Your task to perform on an android device: turn pop-ups off in chrome Image 0: 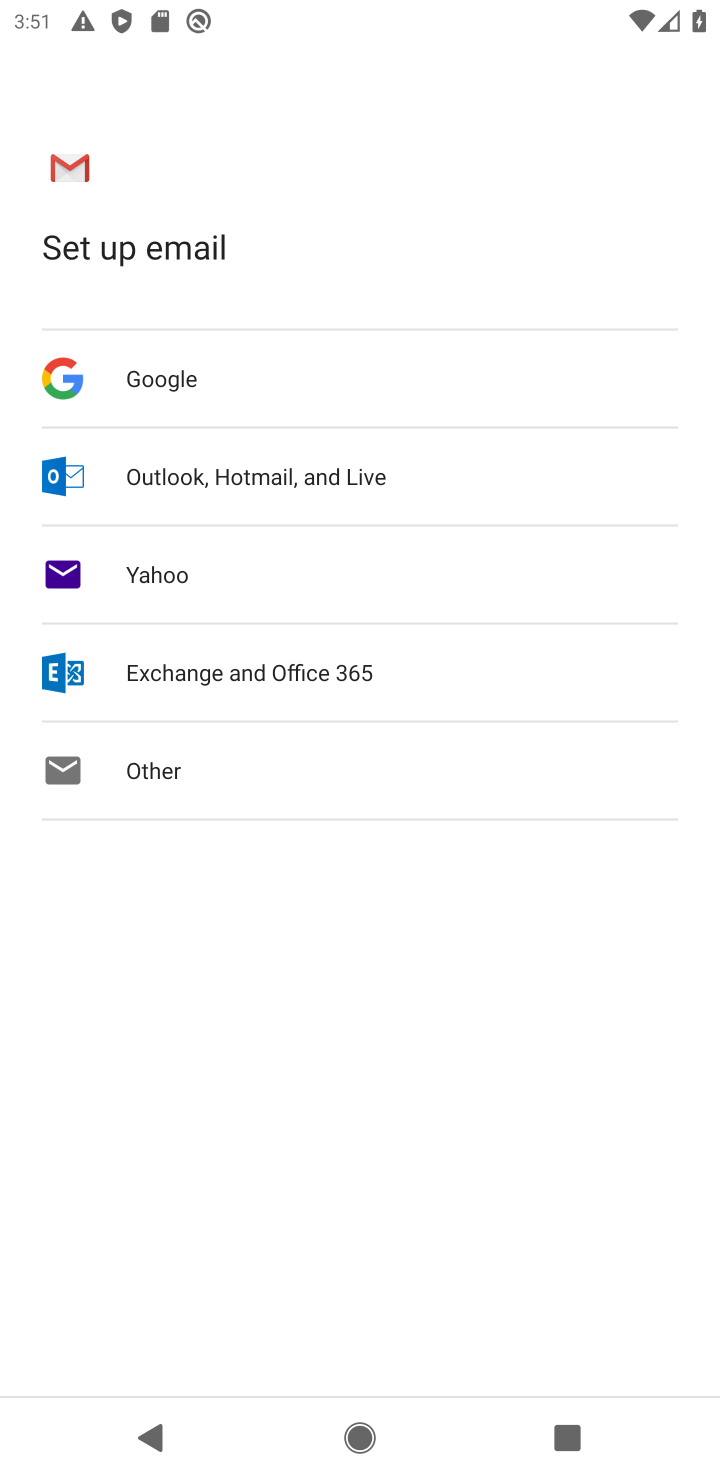
Step 0: press home button
Your task to perform on an android device: turn pop-ups off in chrome Image 1: 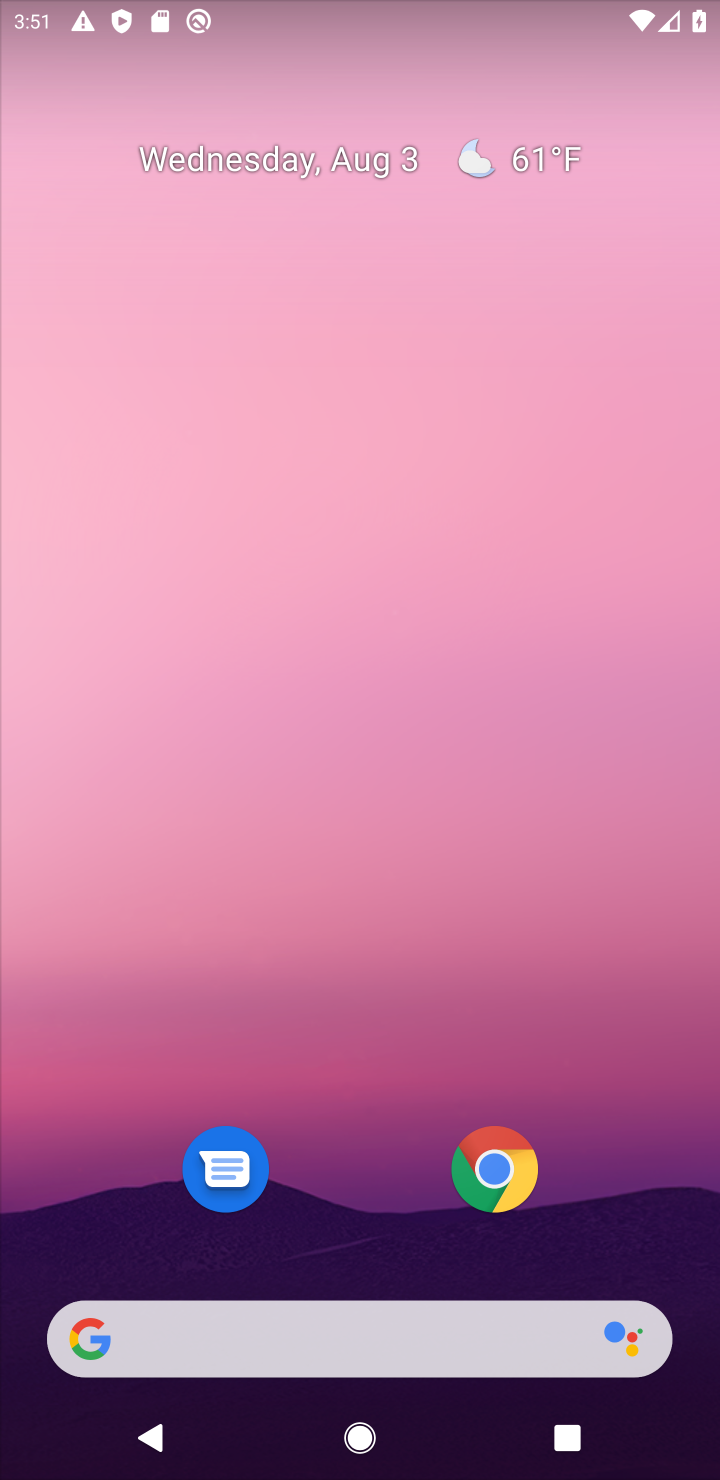
Step 1: click (506, 1160)
Your task to perform on an android device: turn pop-ups off in chrome Image 2: 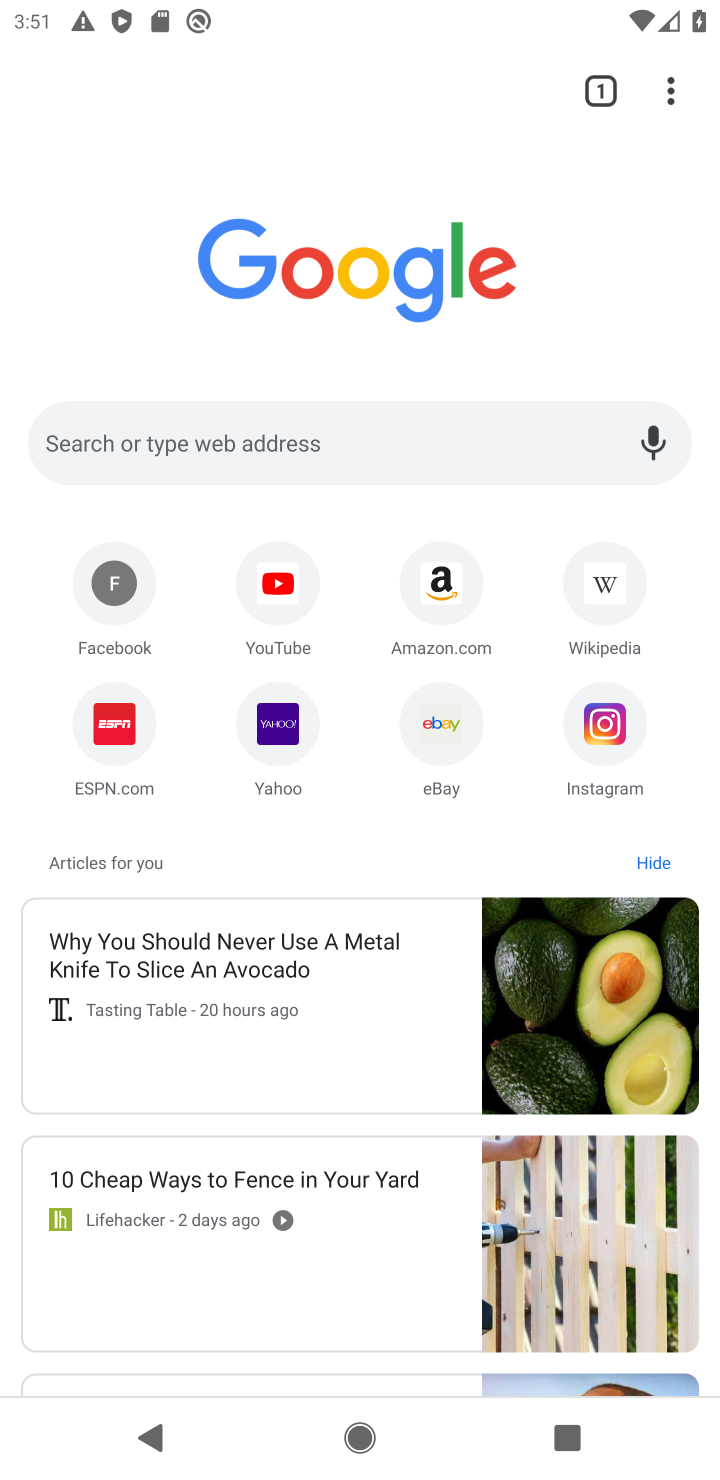
Step 2: click (666, 86)
Your task to perform on an android device: turn pop-ups off in chrome Image 3: 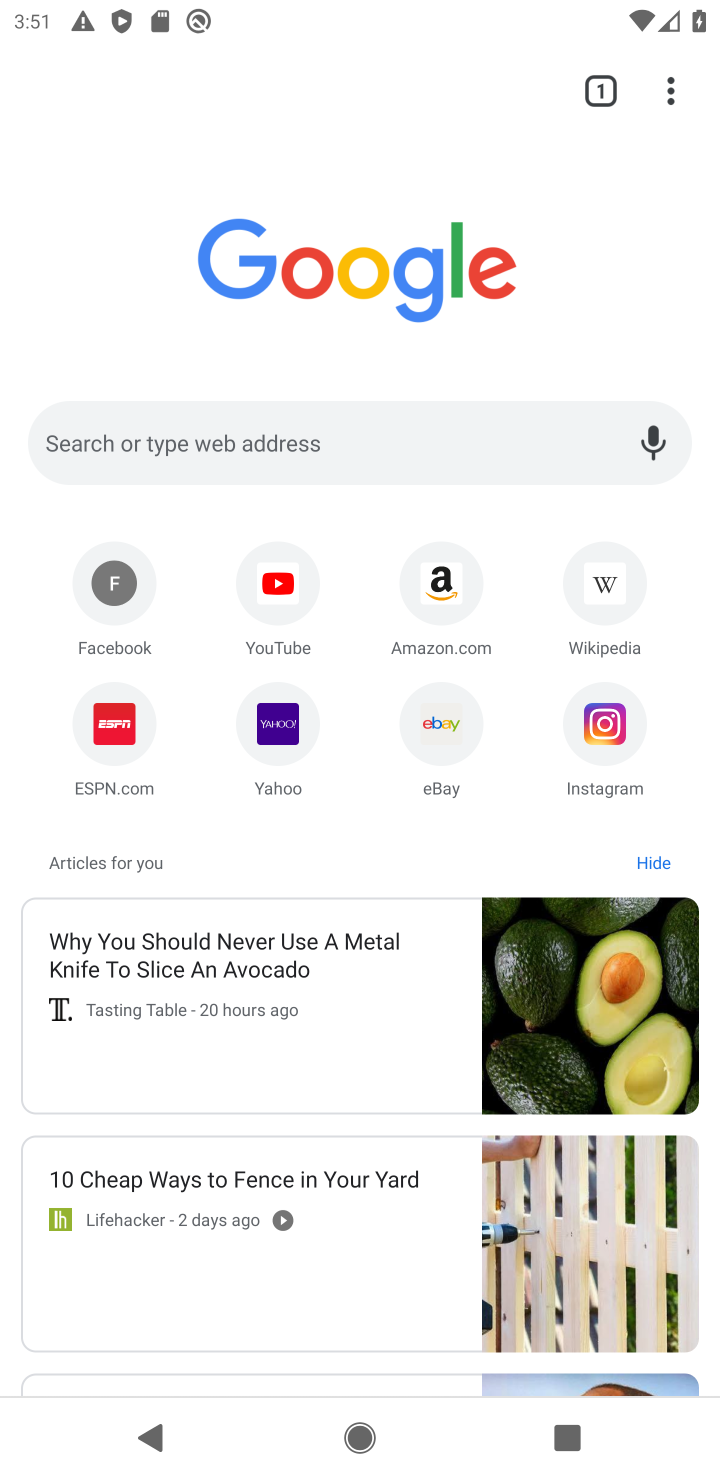
Step 3: click (658, 93)
Your task to perform on an android device: turn pop-ups off in chrome Image 4: 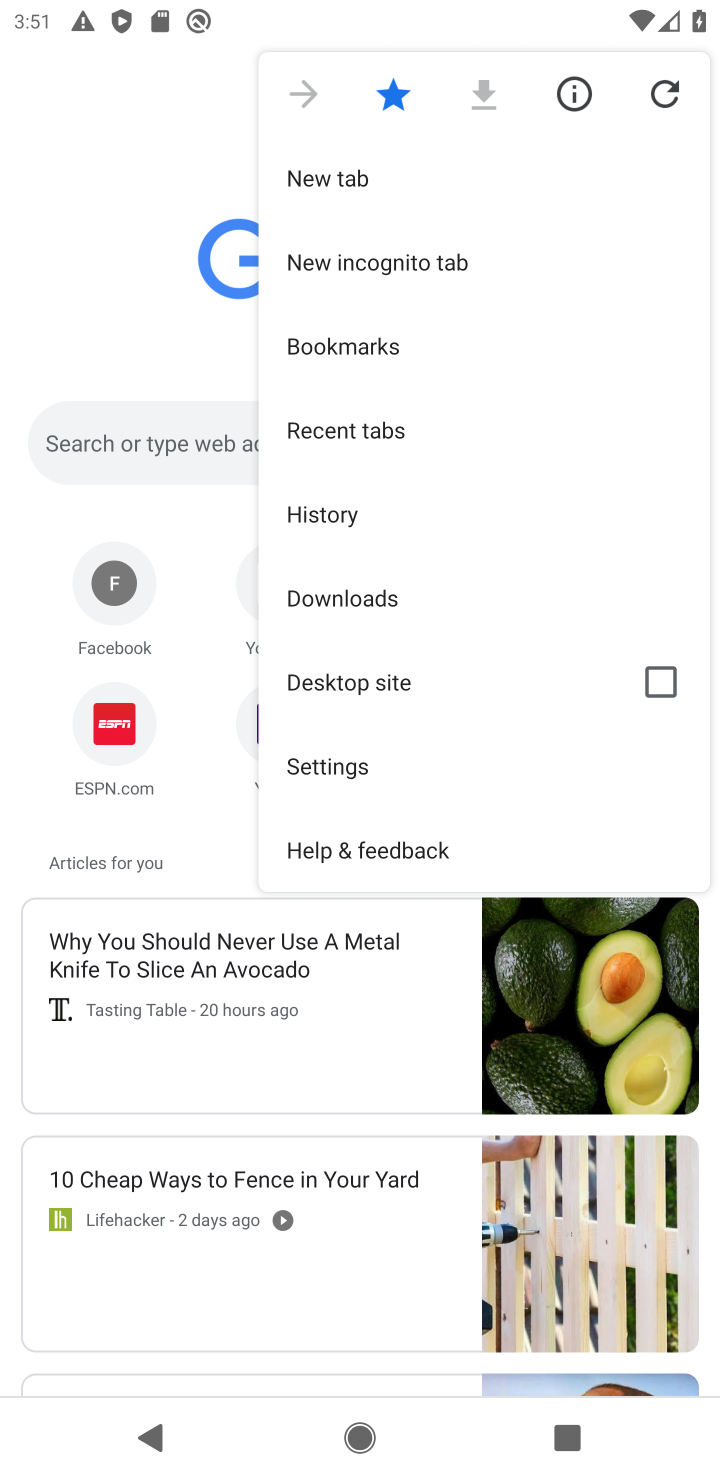
Step 4: click (678, 96)
Your task to perform on an android device: turn pop-ups off in chrome Image 5: 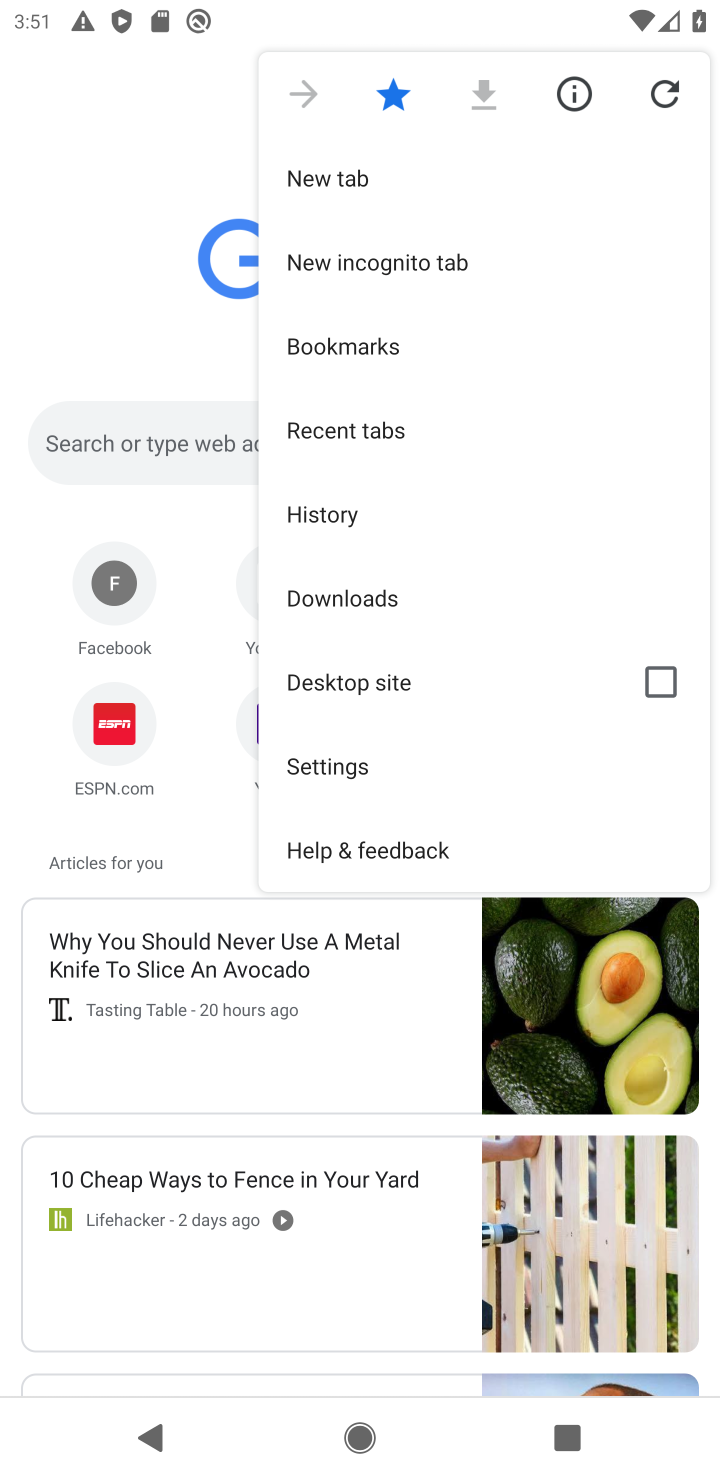
Step 5: click (342, 756)
Your task to perform on an android device: turn pop-ups off in chrome Image 6: 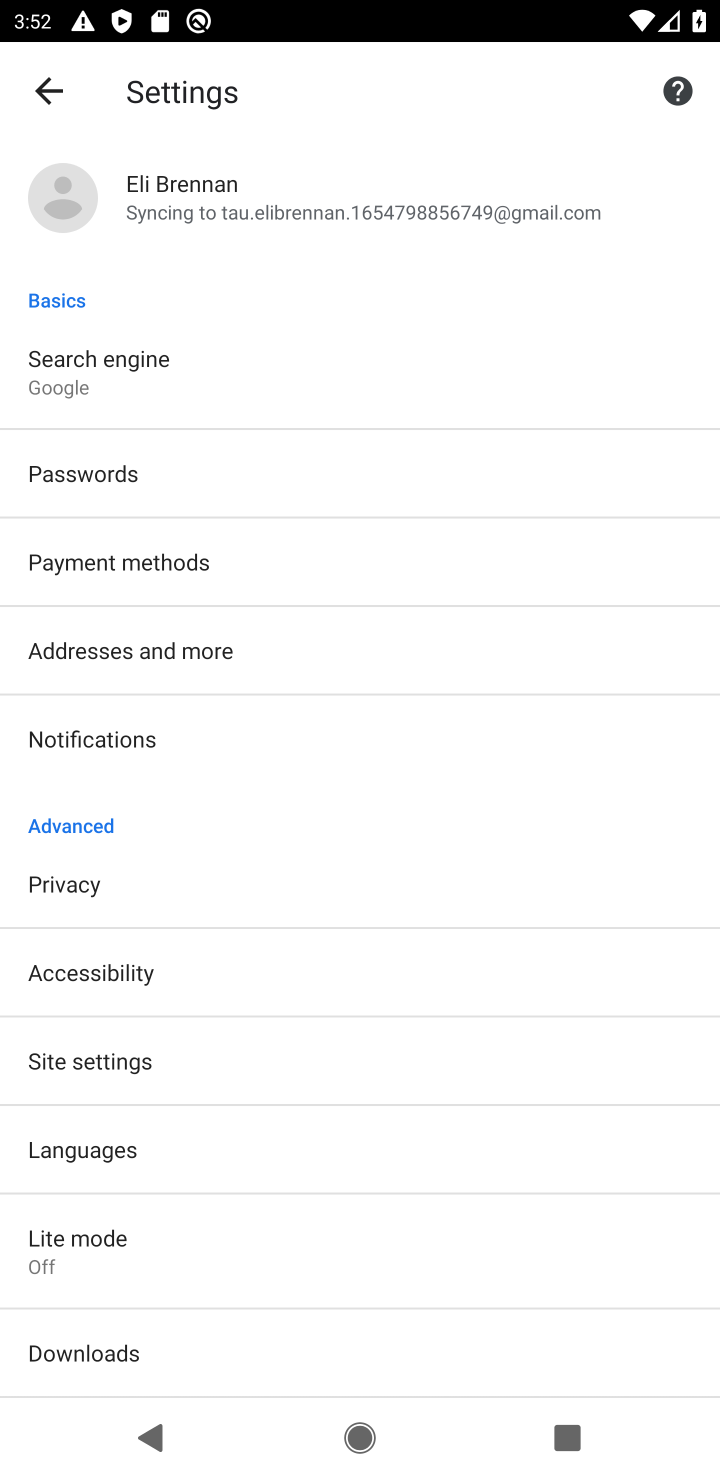
Step 6: drag from (147, 1239) to (201, 823)
Your task to perform on an android device: turn pop-ups off in chrome Image 7: 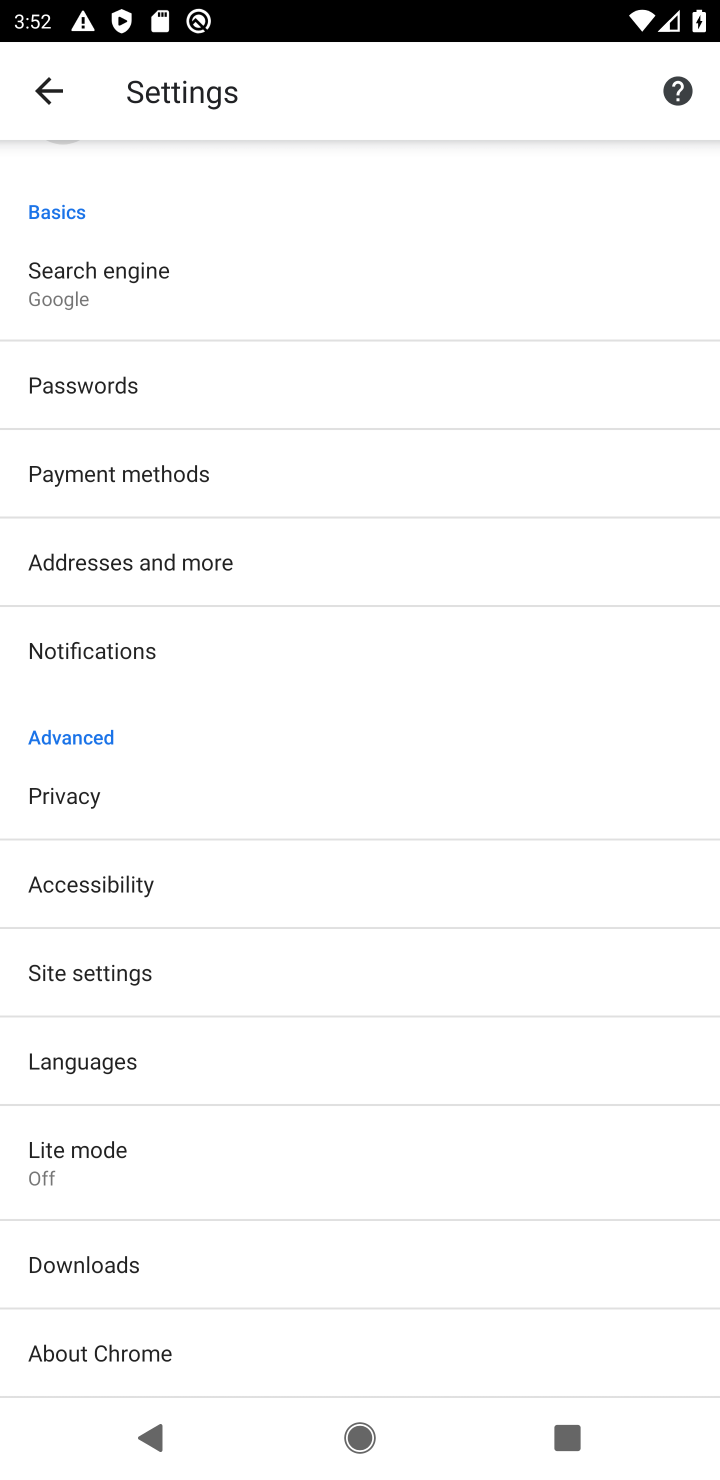
Step 7: drag from (132, 1115) to (128, 832)
Your task to perform on an android device: turn pop-ups off in chrome Image 8: 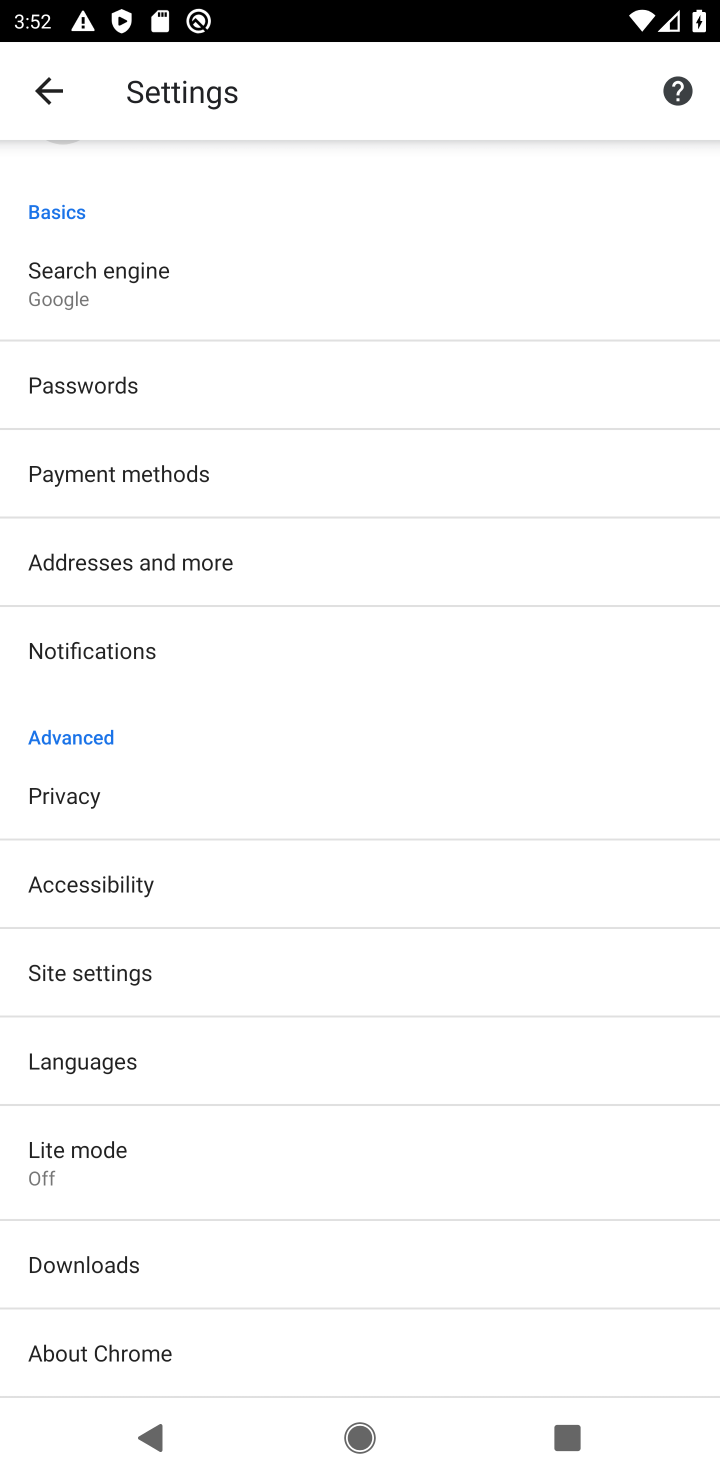
Step 8: drag from (146, 1276) to (127, 1077)
Your task to perform on an android device: turn pop-ups off in chrome Image 9: 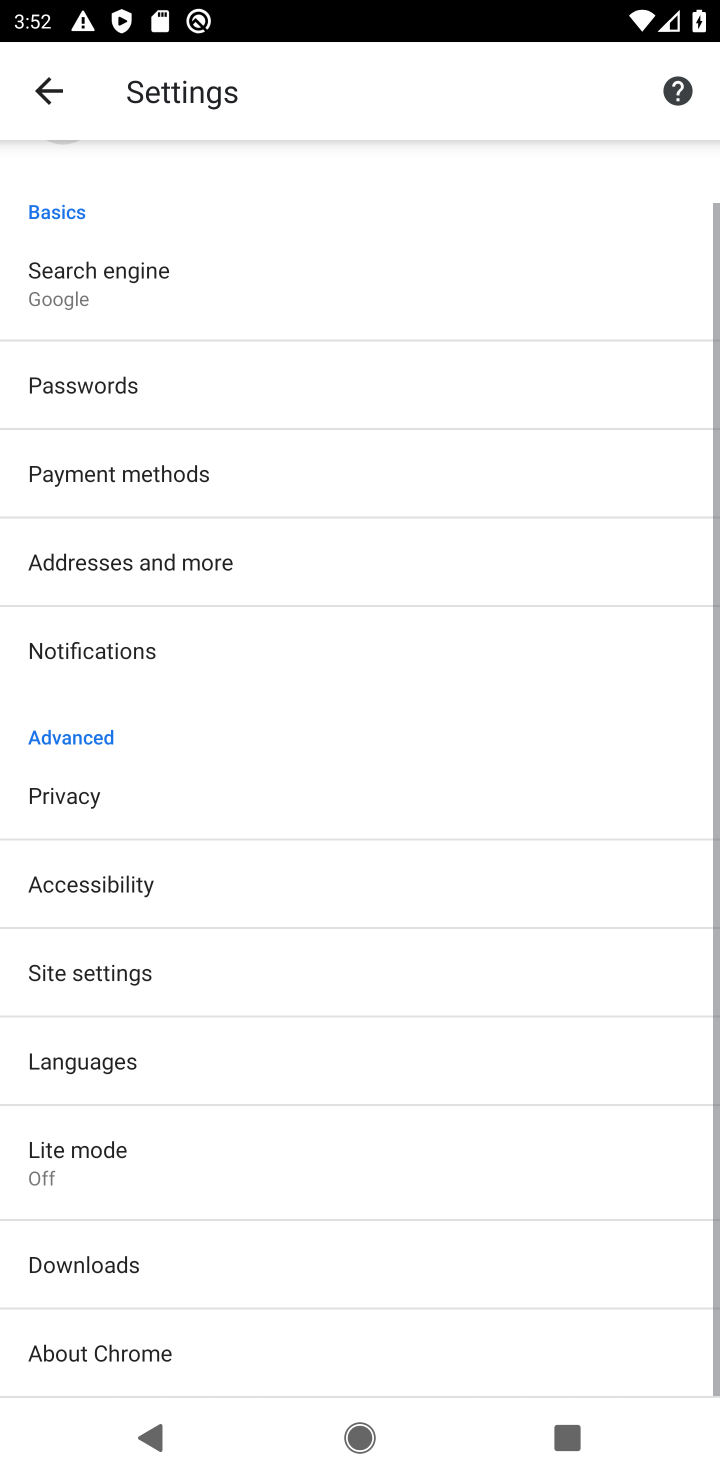
Step 9: click (97, 977)
Your task to perform on an android device: turn pop-ups off in chrome Image 10: 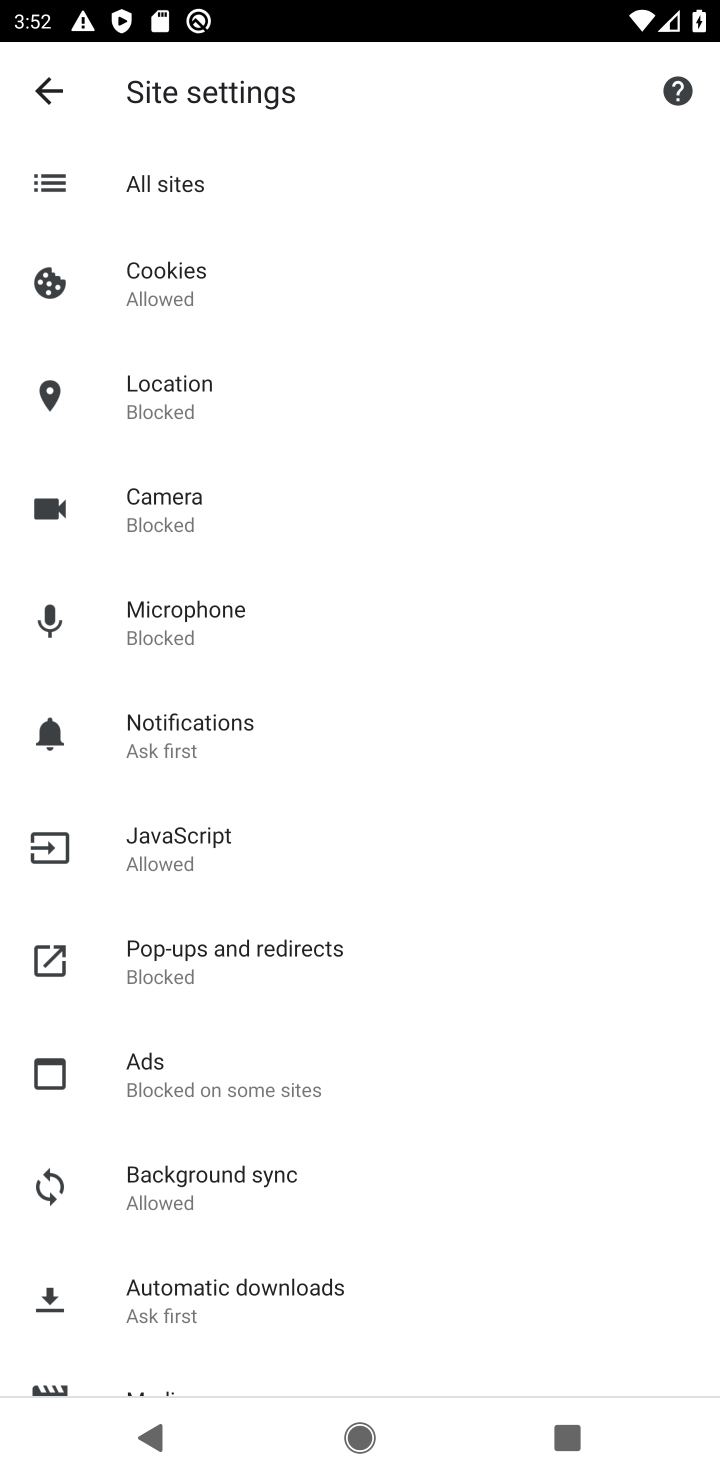
Step 10: click (217, 973)
Your task to perform on an android device: turn pop-ups off in chrome Image 11: 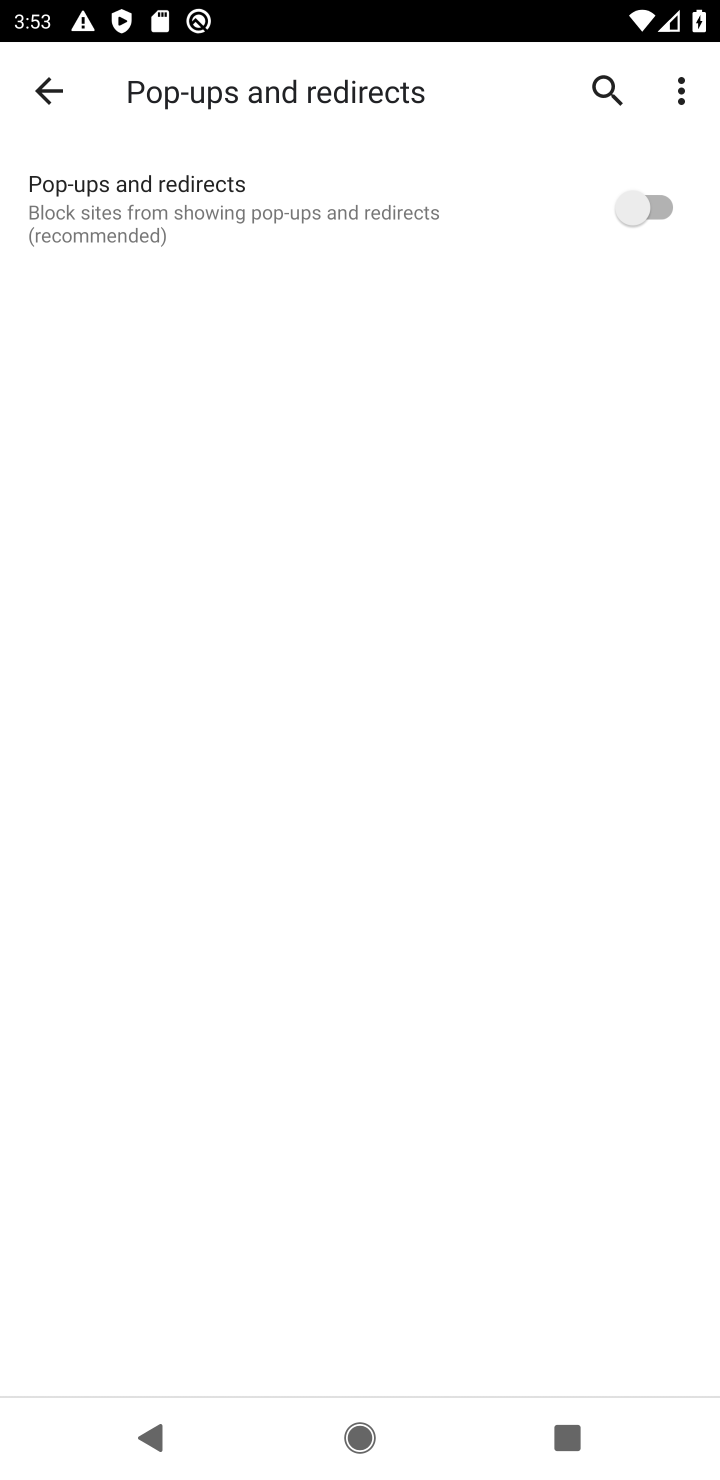
Step 11: task complete